Your task to perform on an android device: turn vacation reply on in the gmail app Image 0: 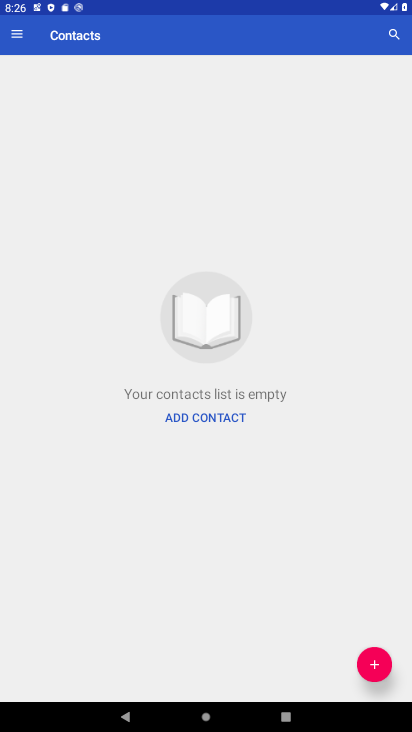
Step 0: press home button
Your task to perform on an android device: turn vacation reply on in the gmail app Image 1: 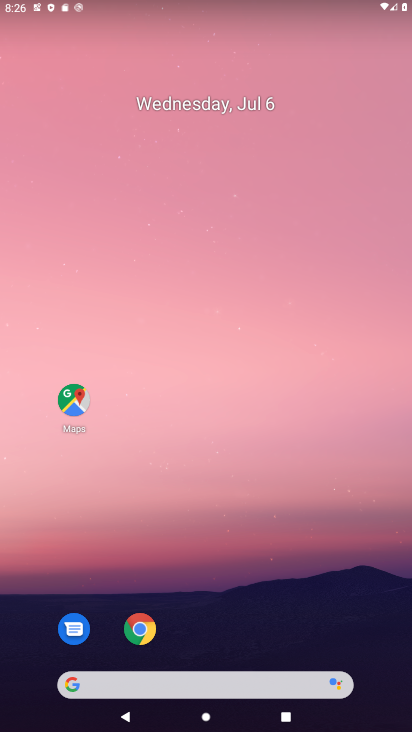
Step 1: drag from (245, 713) to (167, 27)
Your task to perform on an android device: turn vacation reply on in the gmail app Image 2: 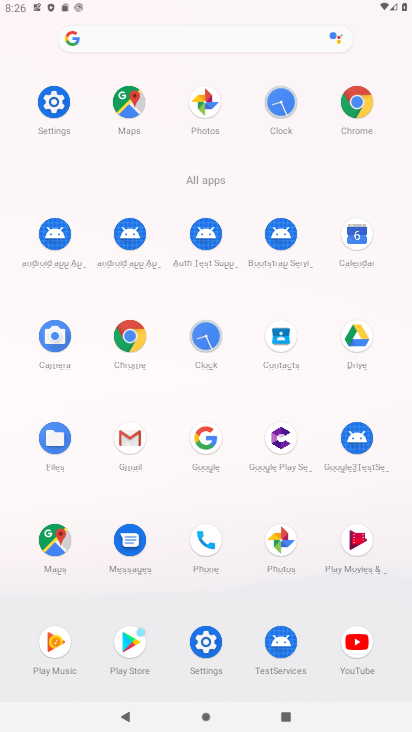
Step 2: click (136, 438)
Your task to perform on an android device: turn vacation reply on in the gmail app Image 3: 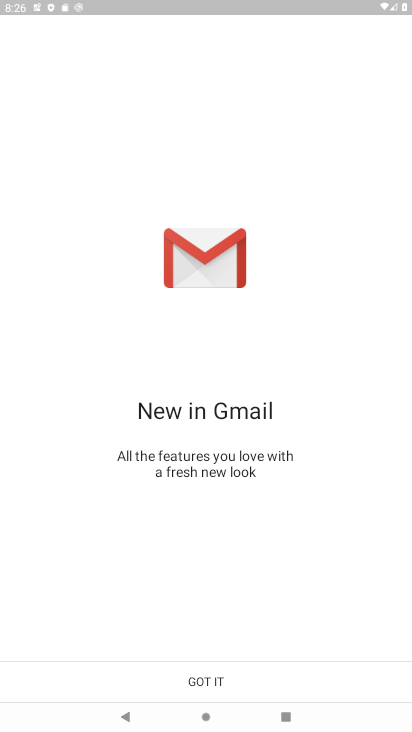
Step 3: click (205, 673)
Your task to perform on an android device: turn vacation reply on in the gmail app Image 4: 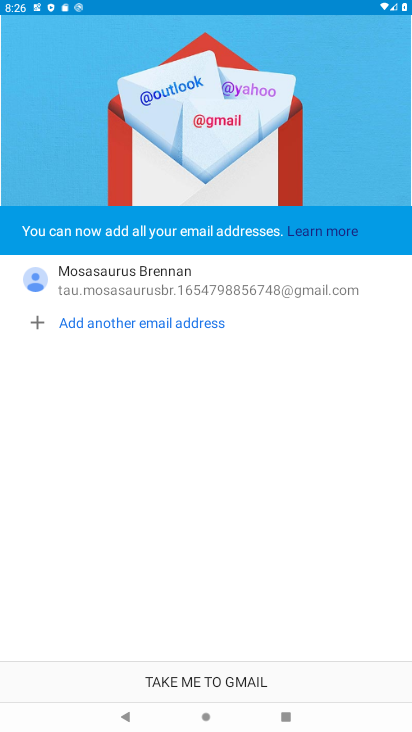
Step 4: click (205, 673)
Your task to perform on an android device: turn vacation reply on in the gmail app Image 5: 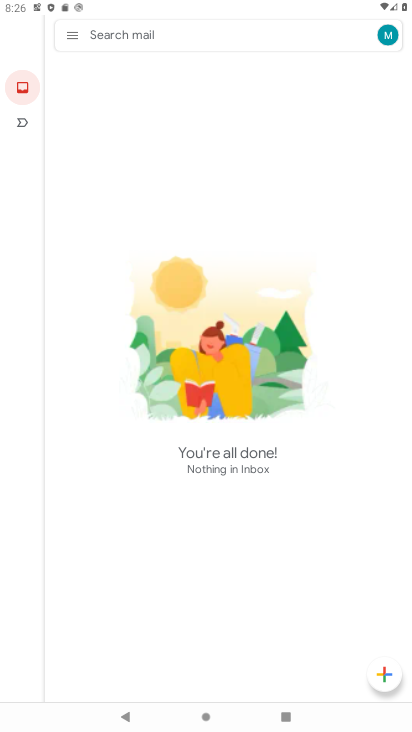
Step 5: click (75, 31)
Your task to perform on an android device: turn vacation reply on in the gmail app Image 6: 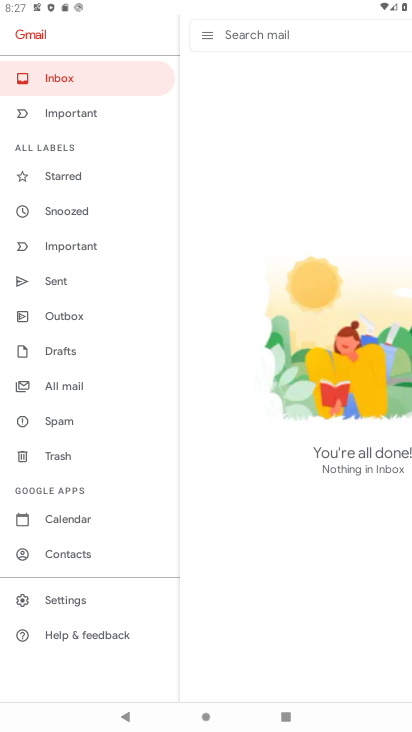
Step 6: click (62, 594)
Your task to perform on an android device: turn vacation reply on in the gmail app Image 7: 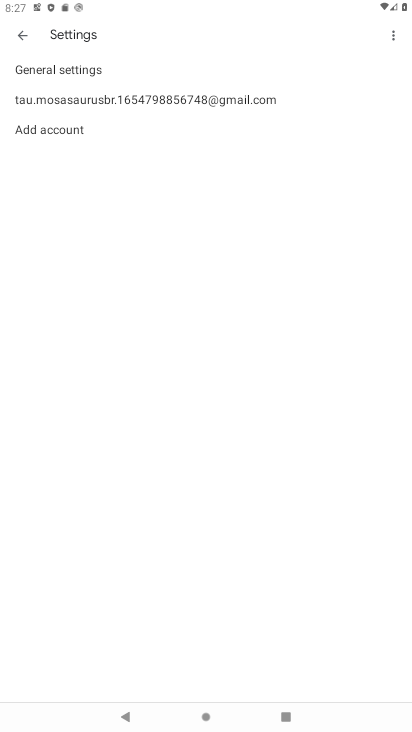
Step 7: click (198, 95)
Your task to perform on an android device: turn vacation reply on in the gmail app Image 8: 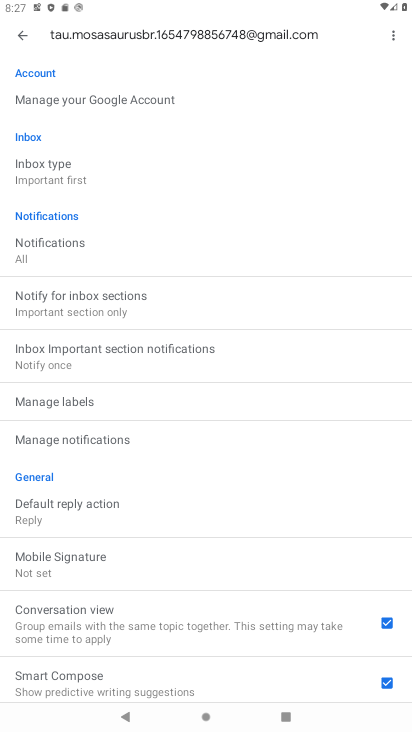
Step 8: drag from (205, 665) to (213, 244)
Your task to perform on an android device: turn vacation reply on in the gmail app Image 9: 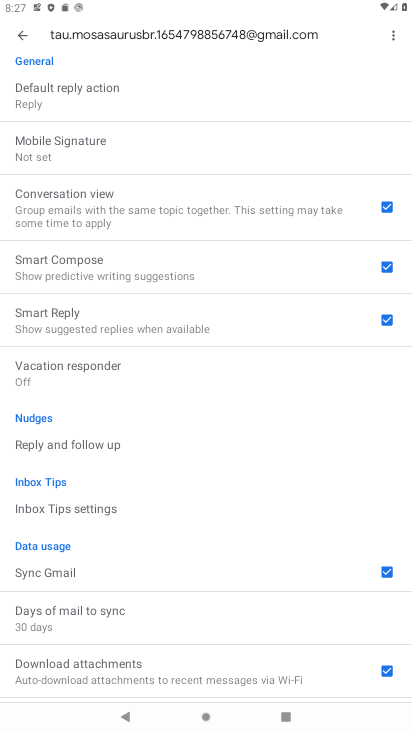
Step 9: click (98, 365)
Your task to perform on an android device: turn vacation reply on in the gmail app Image 10: 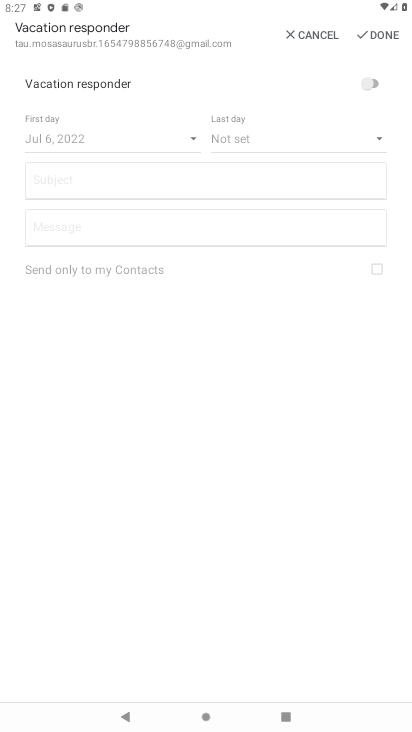
Step 10: click (374, 80)
Your task to perform on an android device: turn vacation reply on in the gmail app Image 11: 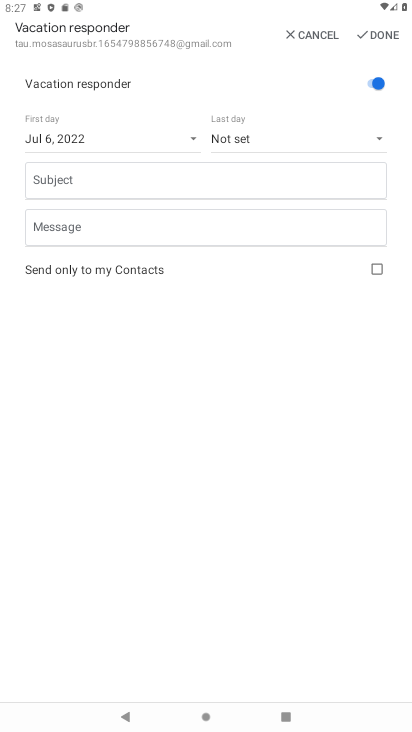
Step 11: task complete